Your task to perform on an android device: What's on my calendar today? Image 0: 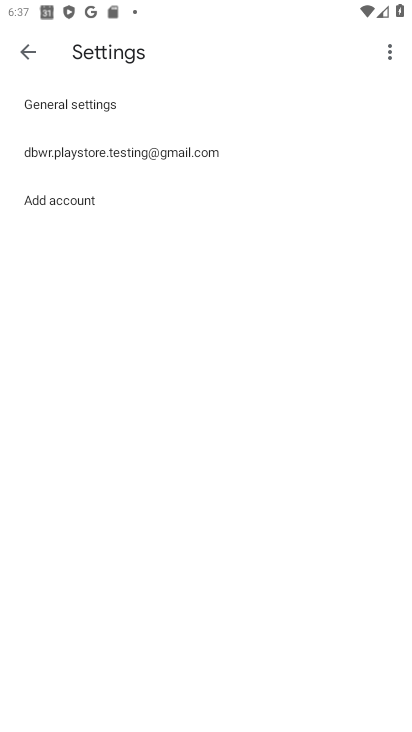
Step 0: press home button
Your task to perform on an android device: What's on my calendar today? Image 1: 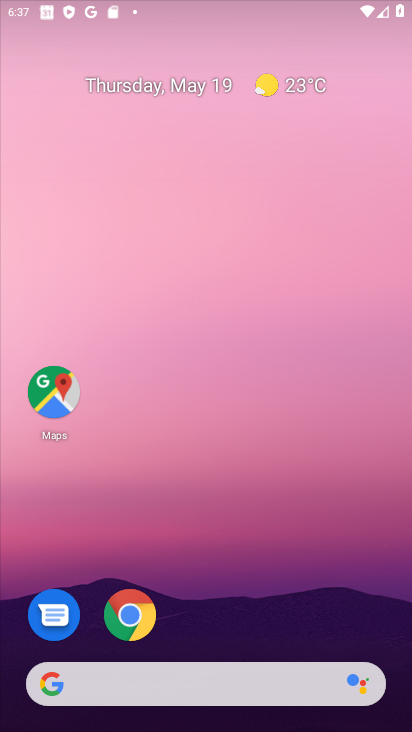
Step 1: drag from (308, 644) to (222, 35)
Your task to perform on an android device: What's on my calendar today? Image 2: 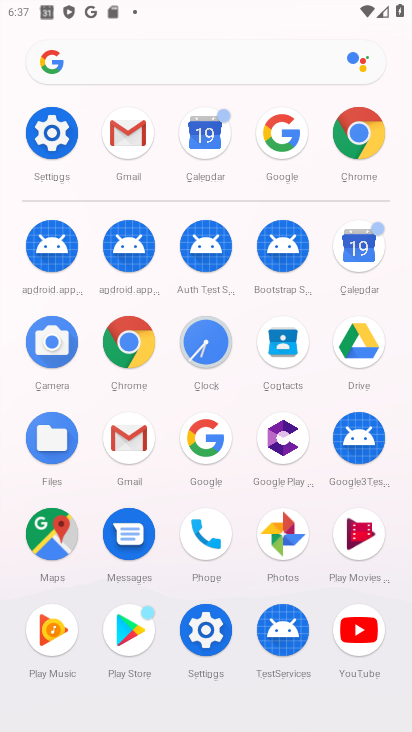
Step 2: click (361, 277)
Your task to perform on an android device: What's on my calendar today? Image 3: 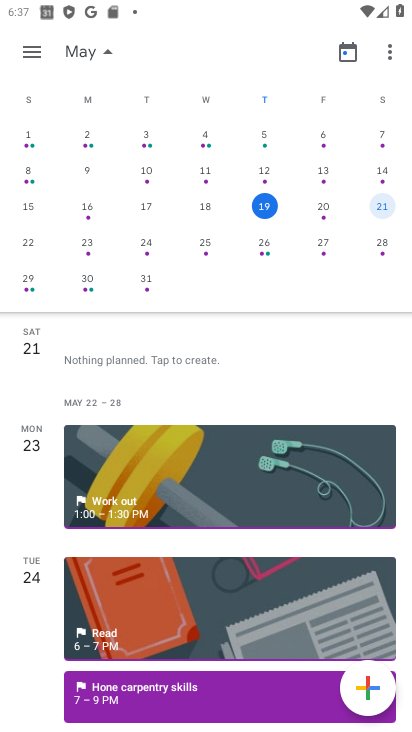
Step 3: click (316, 214)
Your task to perform on an android device: What's on my calendar today? Image 4: 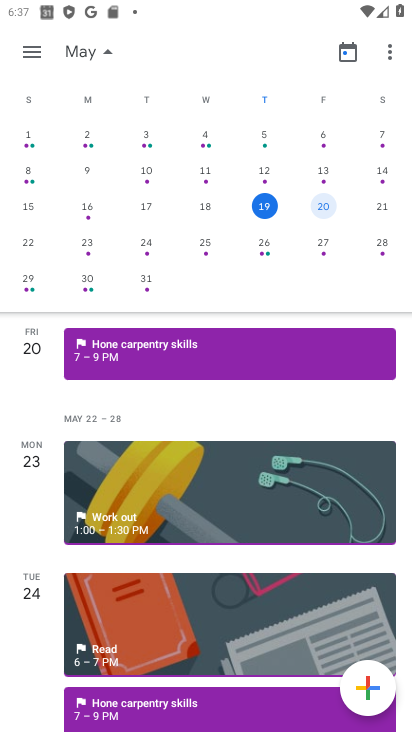
Step 4: click (169, 364)
Your task to perform on an android device: What's on my calendar today? Image 5: 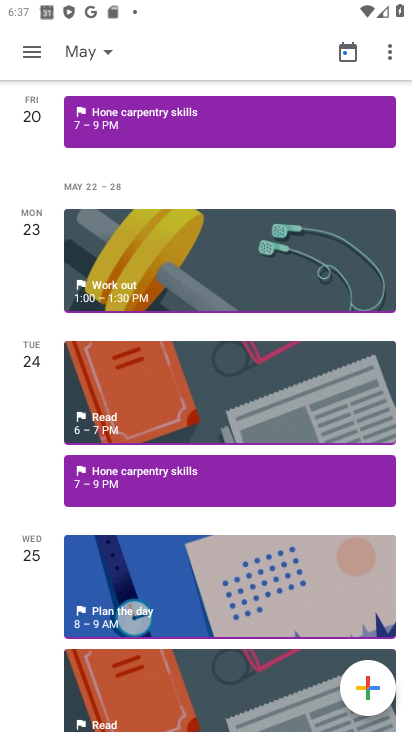
Step 5: task complete